Your task to perform on an android device: Do I have any events this weekend? Image 0: 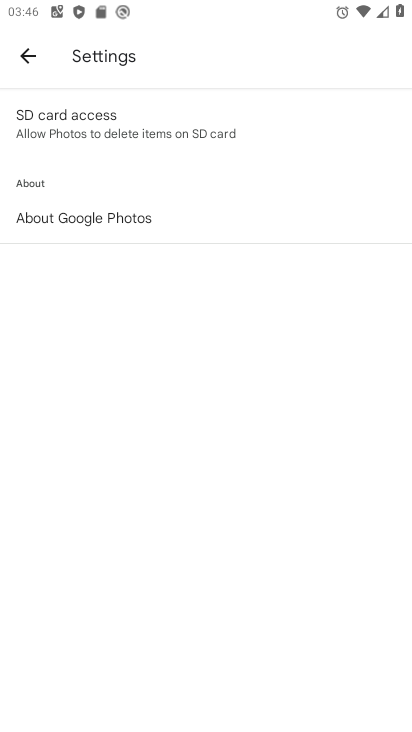
Step 0: press home button
Your task to perform on an android device: Do I have any events this weekend? Image 1: 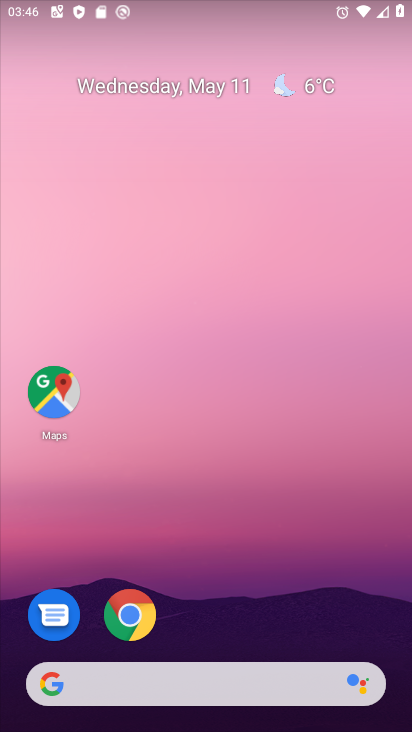
Step 1: drag from (217, 533) to (241, 170)
Your task to perform on an android device: Do I have any events this weekend? Image 2: 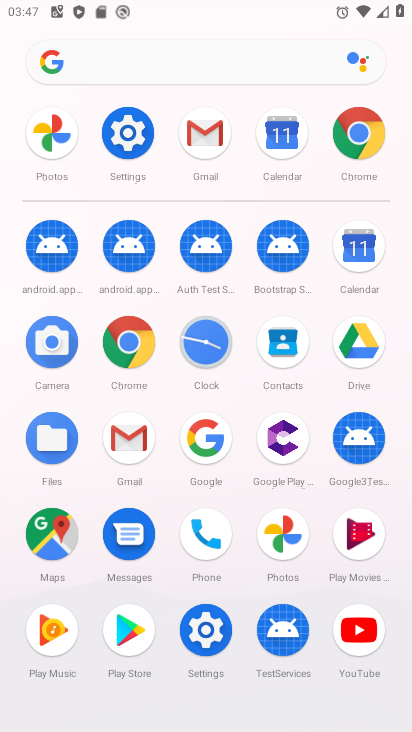
Step 2: click (359, 252)
Your task to perform on an android device: Do I have any events this weekend? Image 3: 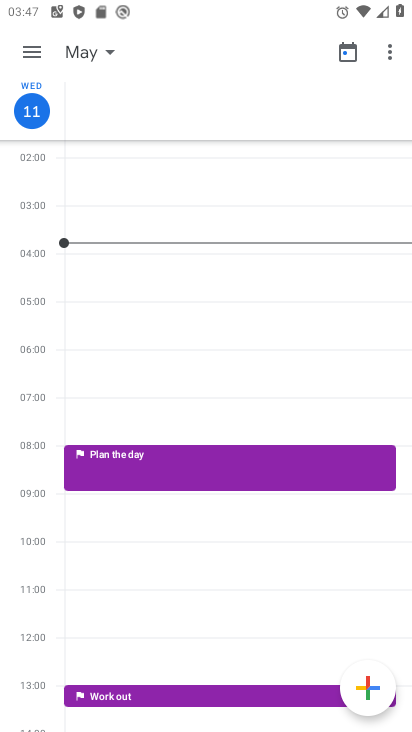
Step 3: click (33, 46)
Your task to perform on an android device: Do I have any events this weekend? Image 4: 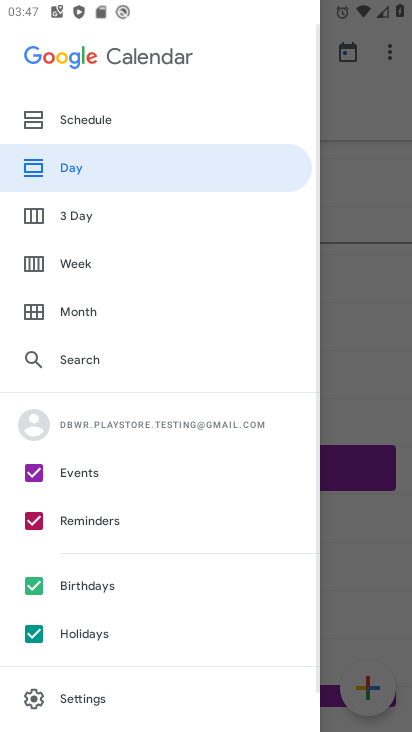
Step 4: click (86, 263)
Your task to perform on an android device: Do I have any events this weekend? Image 5: 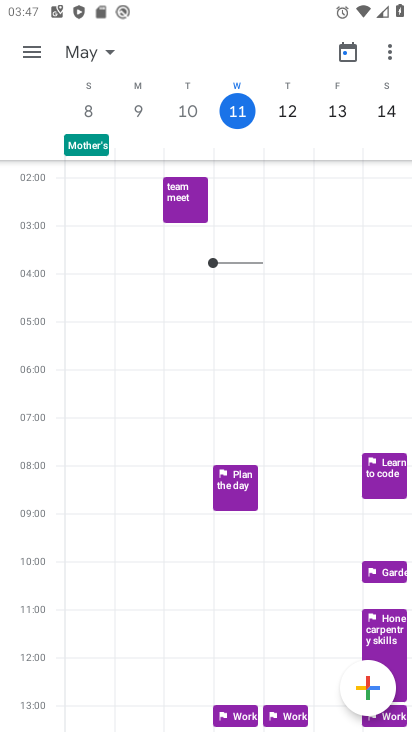
Step 5: task complete